Your task to perform on an android device: Go to accessibility settings Image 0: 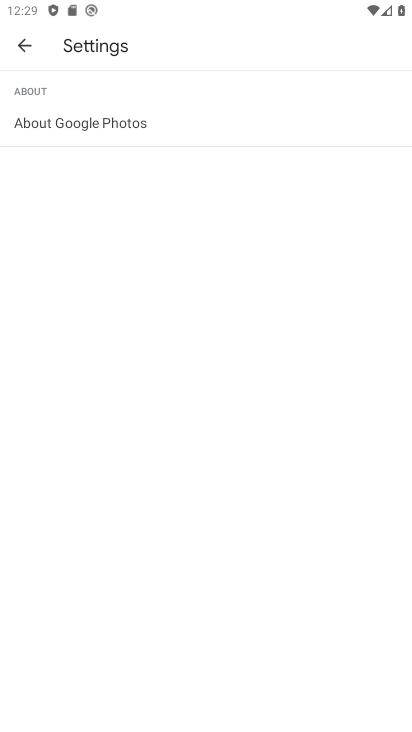
Step 0: press home button
Your task to perform on an android device: Go to accessibility settings Image 1: 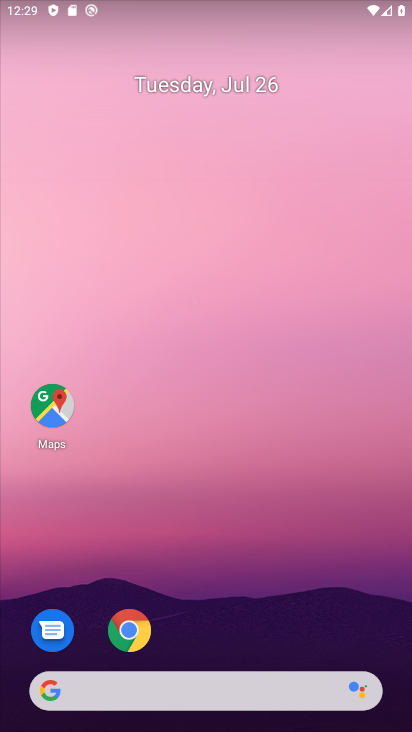
Step 1: drag from (329, 614) to (298, 147)
Your task to perform on an android device: Go to accessibility settings Image 2: 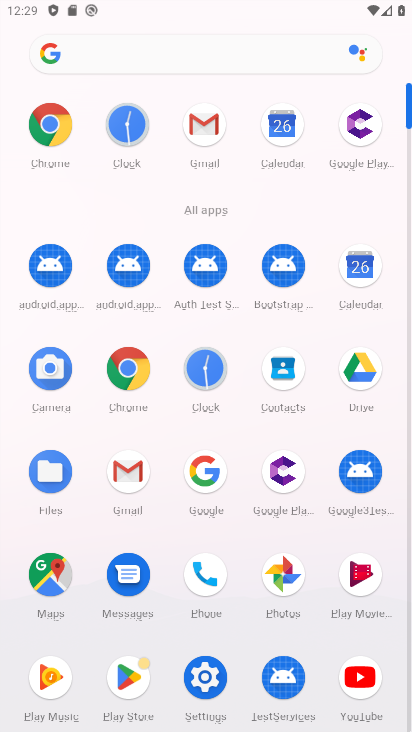
Step 2: click (203, 682)
Your task to perform on an android device: Go to accessibility settings Image 3: 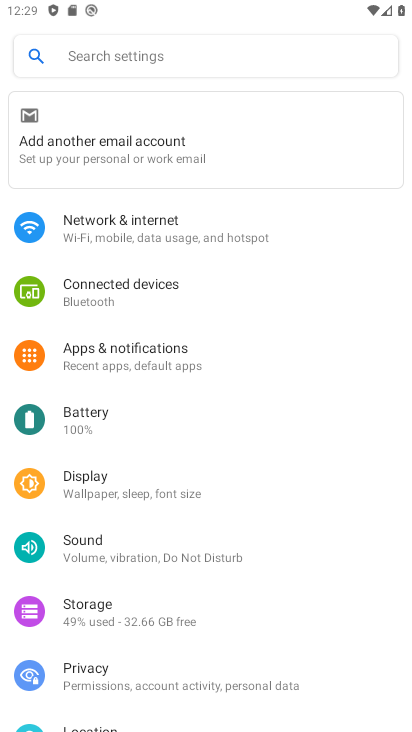
Step 3: drag from (289, 708) to (290, 369)
Your task to perform on an android device: Go to accessibility settings Image 4: 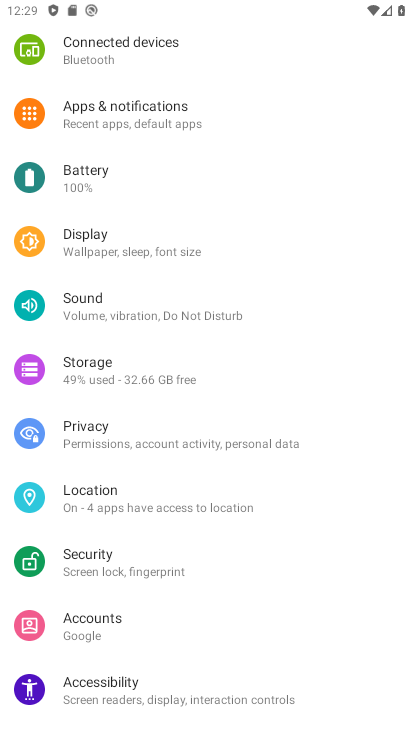
Step 4: drag from (231, 677) to (253, 180)
Your task to perform on an android device: Go to accessibility settings Image 5: 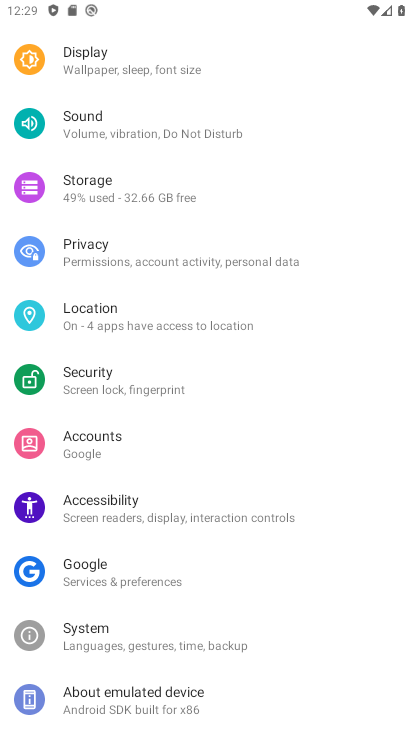
Step 5: click (91, 508)
Your task to perform on an android device: Go to accessibility settings Image 6: 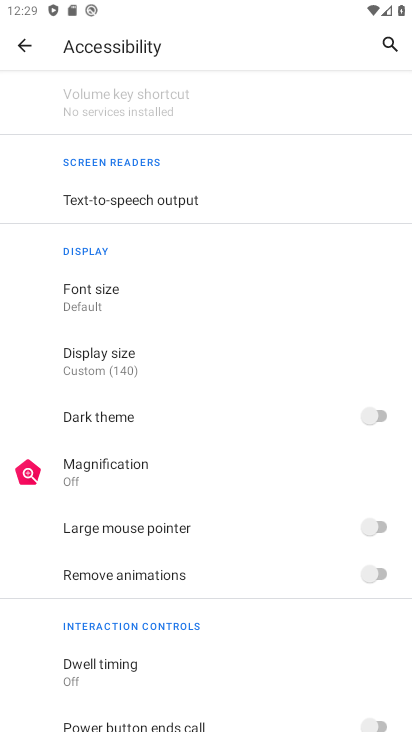
Step 6: task complete